Your task to perform on an android device: clear history in the chrome app Image 0: 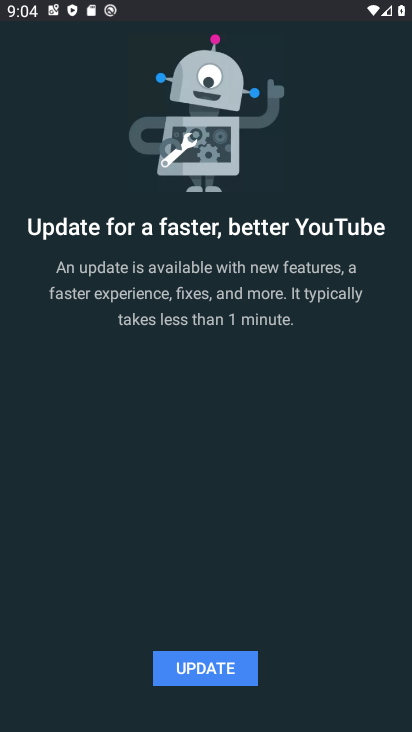
Step 0: press home button
Your task to perform on an android device: clear history in the chrome app Image 1: 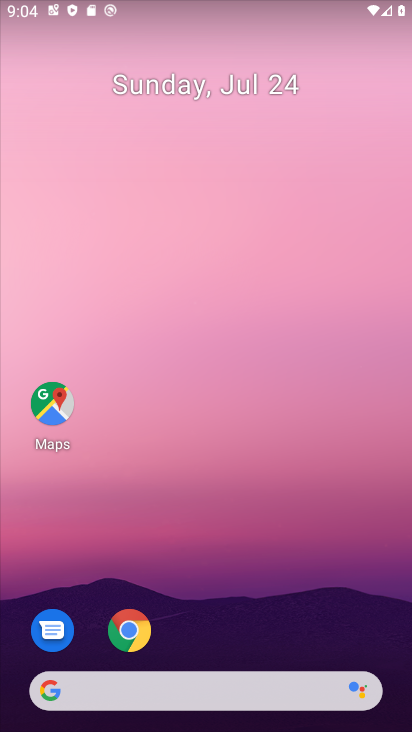
Step 1: click (135, 628)
Your task to perform on an android device: clear history in the chrome app Image 2: 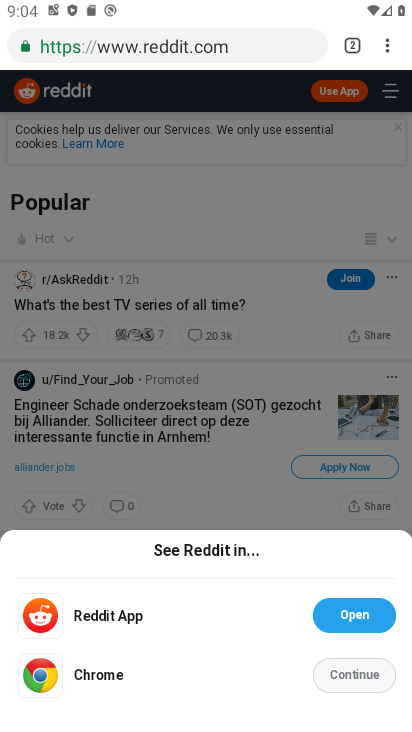
Step 2: click (392, 44)
Your task to perform on an android device: clear history in the chrome app Image 3: 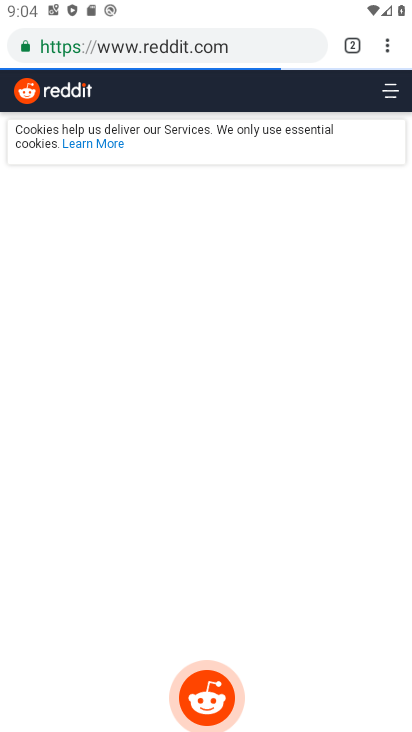
Step 3: click (390, 43)
Your task to perform on an android device: clear history in the chrome app Image 4: 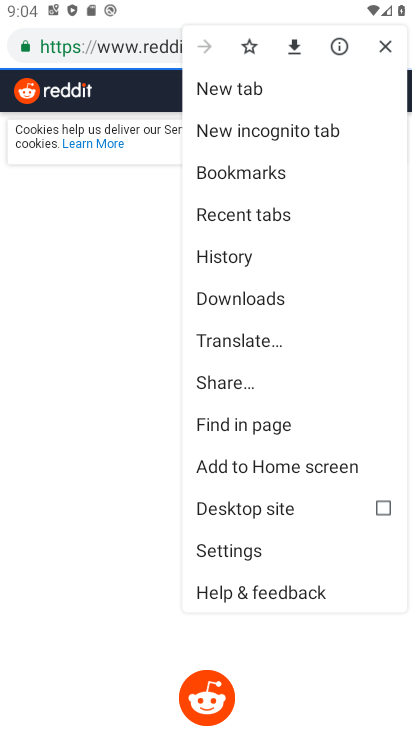
Step 4: click (232, 259)
Your task to perform on an android device: clear history in the chrome app Image 5: 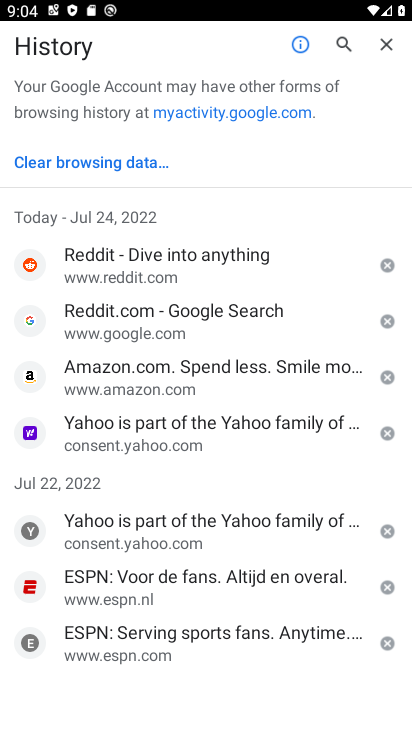
Step 5: click (142, 164)
Your task to perform on an android device: clear history in the chrome app Image 6: 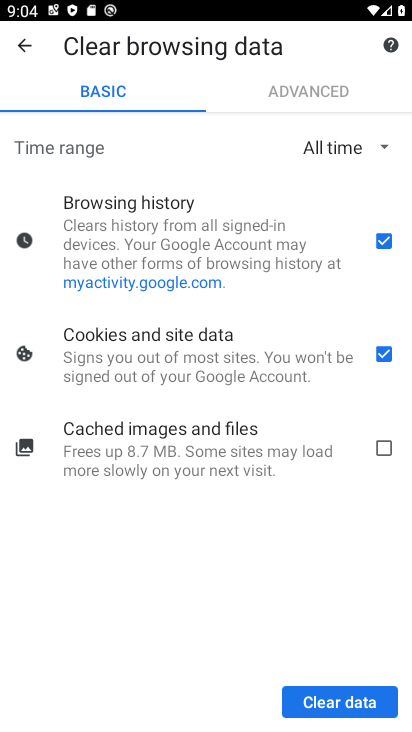
Step 6: click (382, 451)
Your task to perform on an android device: clear history in the chrome app Image 7: 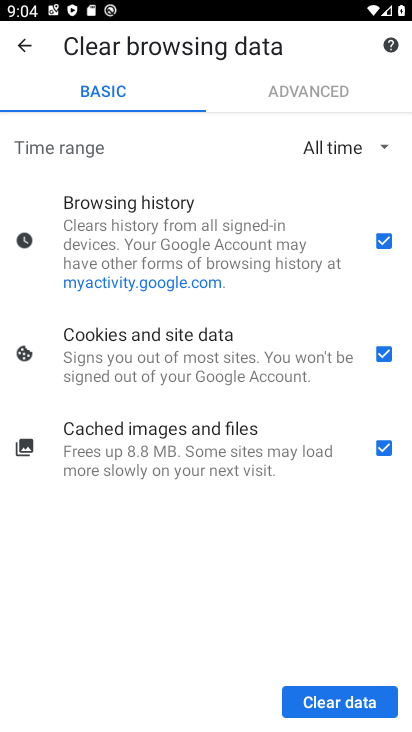
Step 7: click (372, 692)
Your task to perform on an android device: clear history in the chrome app Image 8: 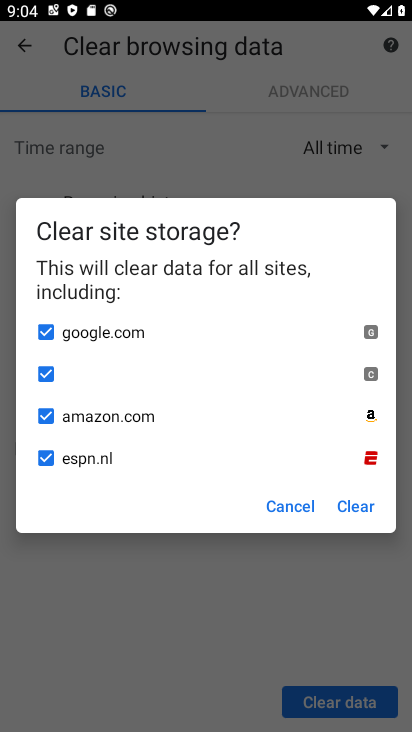
Step 8: click (362, 506)
Your task to perform on an android device: clear history in the chrome app Image 9: 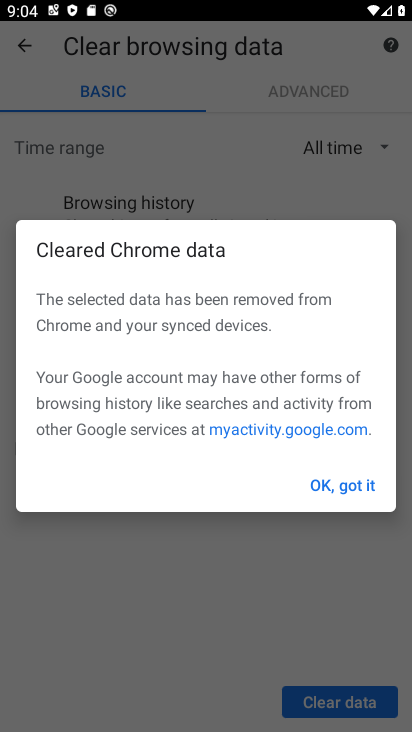
Step 9: click (344, 480)
Your task to perform on an android device: clear history in the chrome app Image 10: 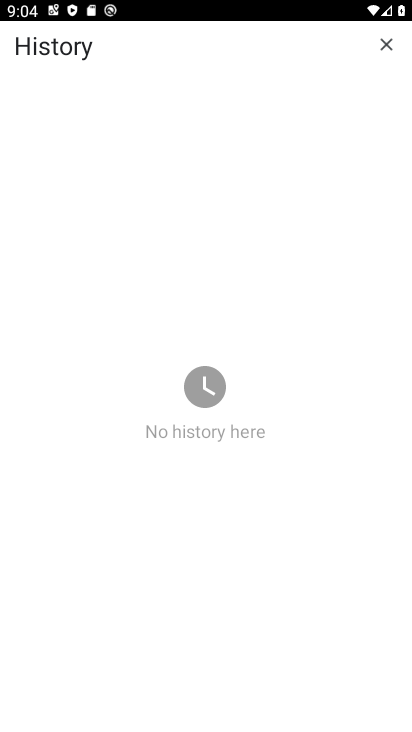
Step 10: task complete